Your task to perform on an android device: Toggle the flashlight Image 0: 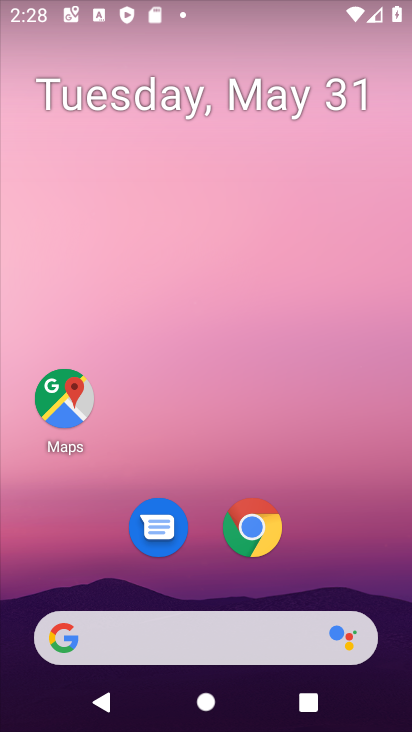
Step 0: drag from (248, 15) to (270, 492)
Your task to perform on an android device: Toggle the flashlight Image 1: 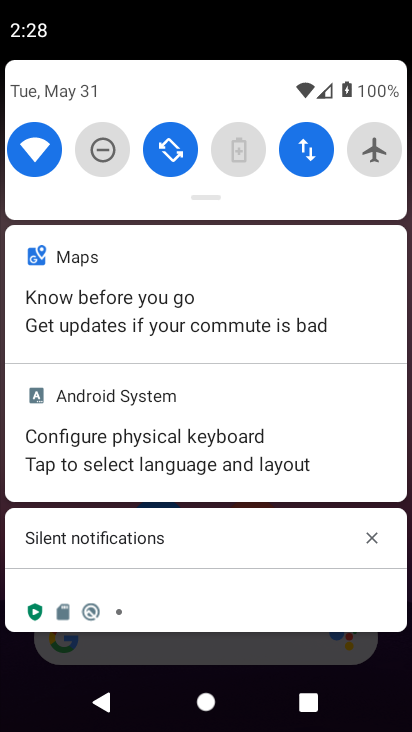
Step 1: drag from (215, 196) to (215, 554)
Your task to perform on an android device: Toggle the flashlight Image 2: 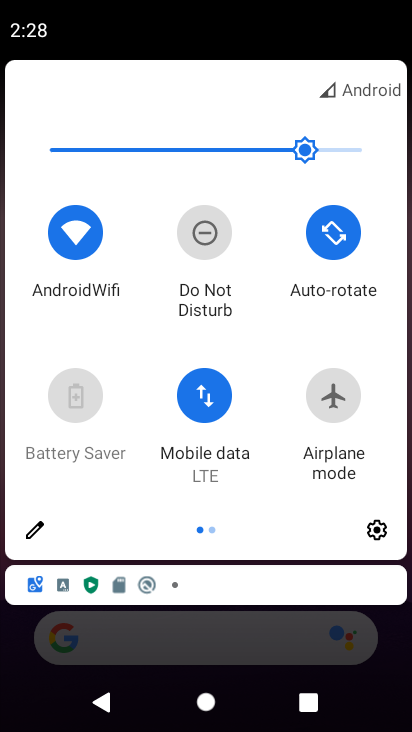
Step 2: click (32, 529)
Your task to perform on an android device: Toggle the flashlight Image 3: 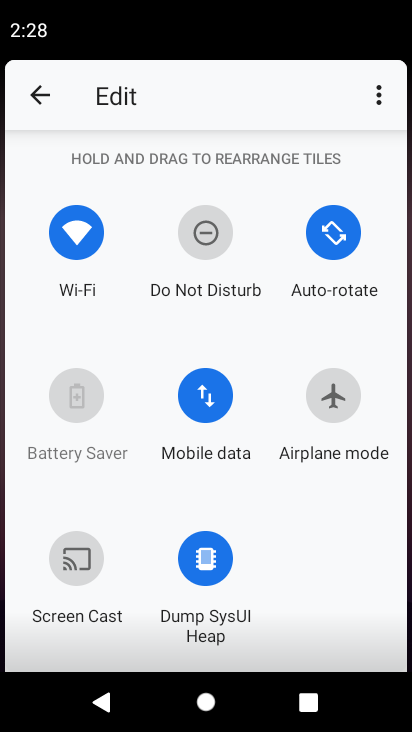
Step 3: task complete